Your task to perform on an android device: Open eBay Image 0: 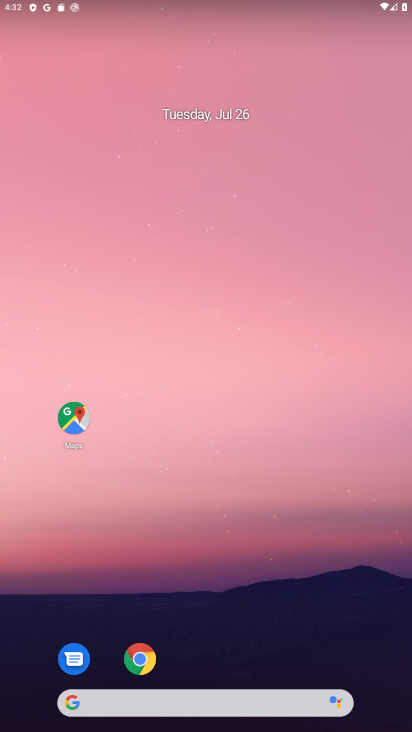
Step 0: press home button
Your task to perform on an android device: Open eBay Image 1: 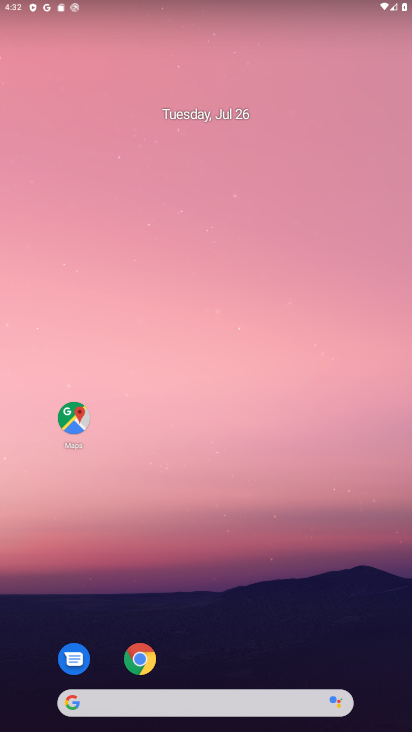
Step 1: click (144, 657)
Your task to perform on an android device: Open eBay Image 2: 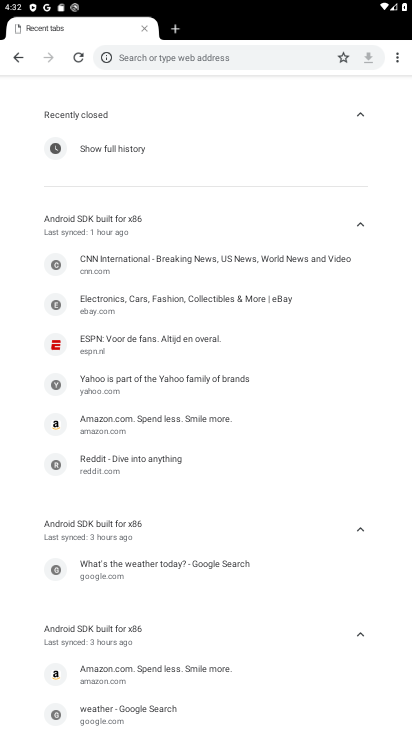
Step 2: click (171, 25)
Your task to perform on an android device: Open eBay Image 3: 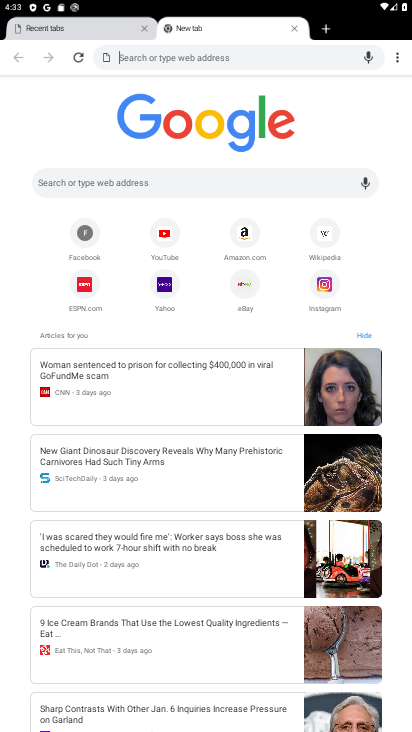
Step 3: click (246, 282)
Your task to perform on an android device: Open eBay Image 4: 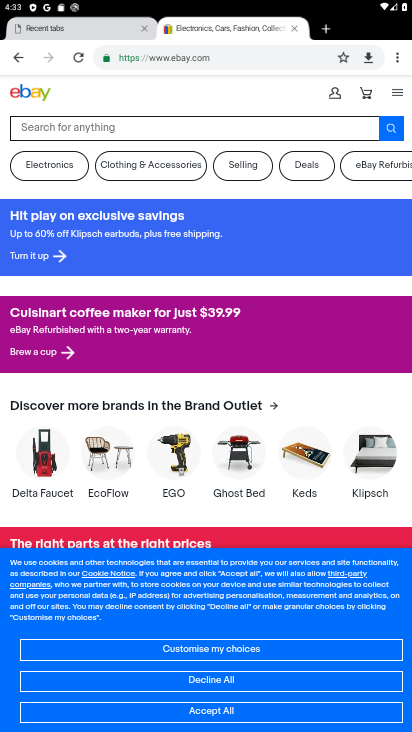
Step 4: task complete